Your task to perform on an android device: stop showing notifications on the lock screen Image 0: 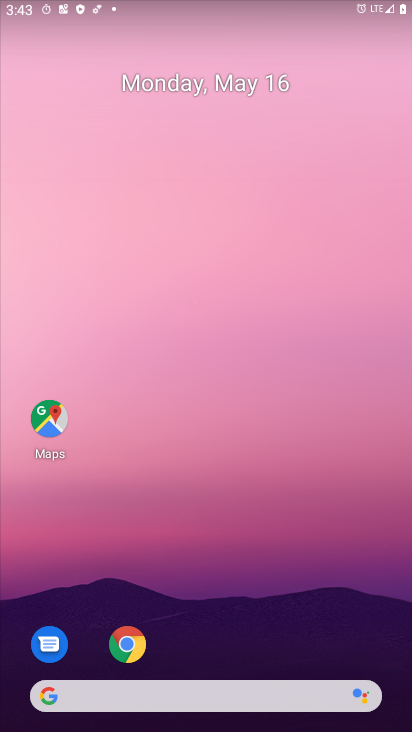
Step 0: drag from (241, 658) to (263, 101)
Your task to perform on an android device: stop showing notifications on the lock screen Image 1: 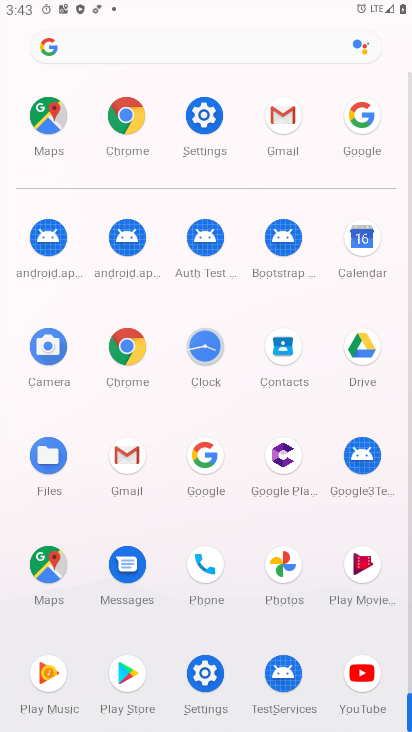
Step 1: click (202, 130)
Your task to perform on an android device: stop showing notifications on the lock screen Image 2: 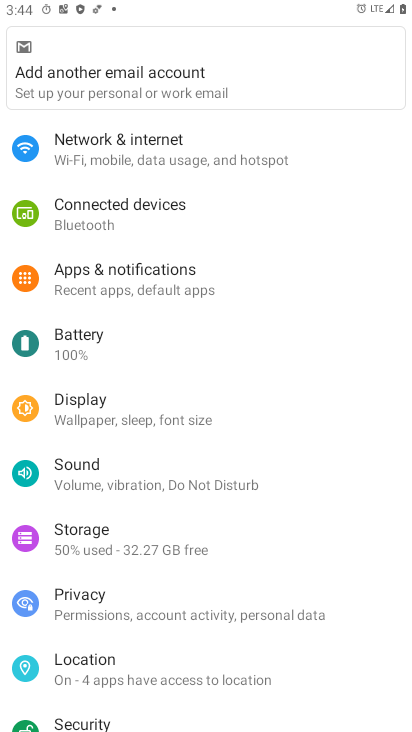
Step 2: click (157, 285)
Your task to perform on an android device: stop showing notifications on the lock screen Image 3: 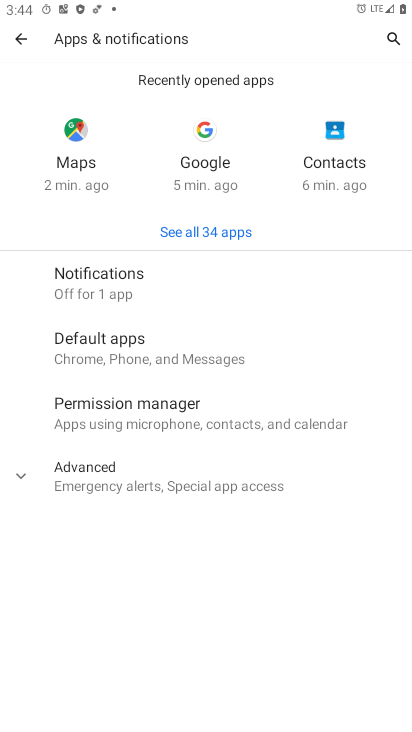
Step 3: click (142, 278)
Your task to perform on an android device: stop showing notifications on the lock screen Image 4: 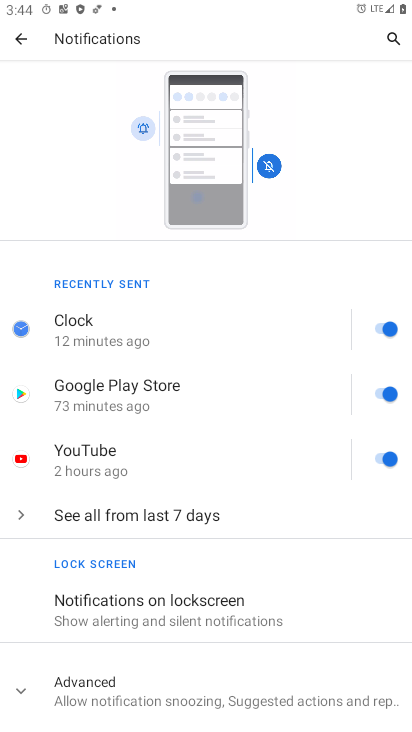
Step 4: drag from (154, 647) to (195, 407)
Your task to perform on an android device: stop showing notifications on the lock screen Image 5: 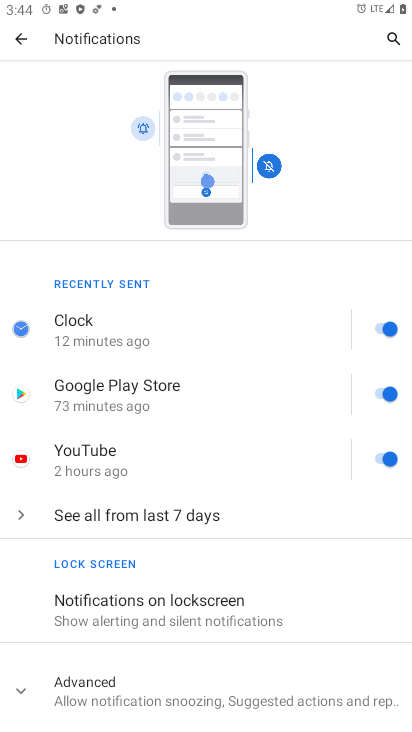
Step 5: click (188, 602)
Your task to perform on an android device: stop showing notifications on the lock screen Image 6: 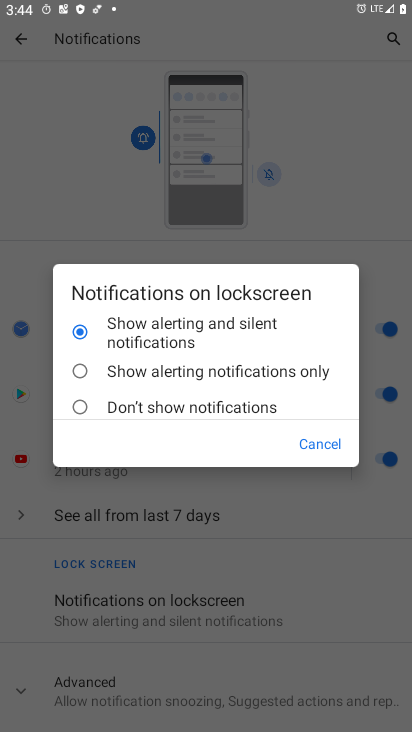
Step 6: click (166, 412)
Your task to perform on an android device: stop showing notifications on the lock screen Image 7: 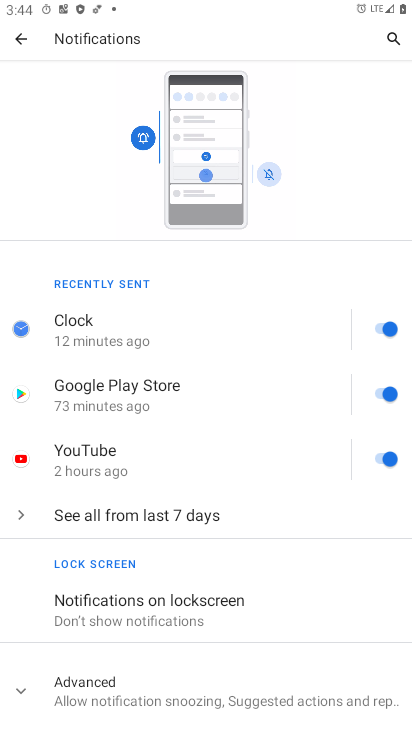
Step 7: task complete